Your task to perform on an android device: Open accessibility settings Image 0: 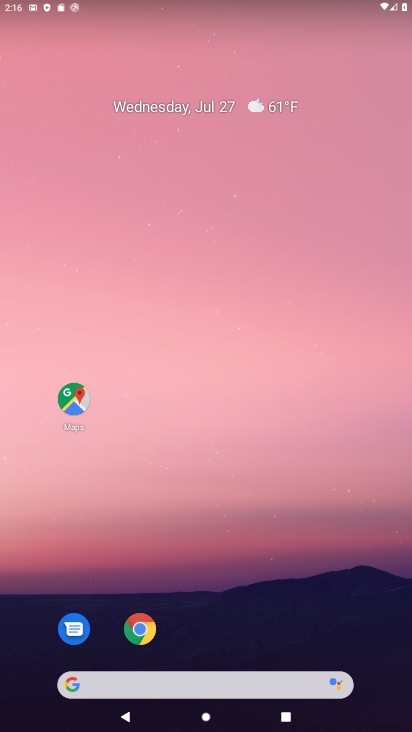
Step 0: drag from (220, 622) to (234, 67)
Your task to perform on an android device: Open accessibility settings Image 1: 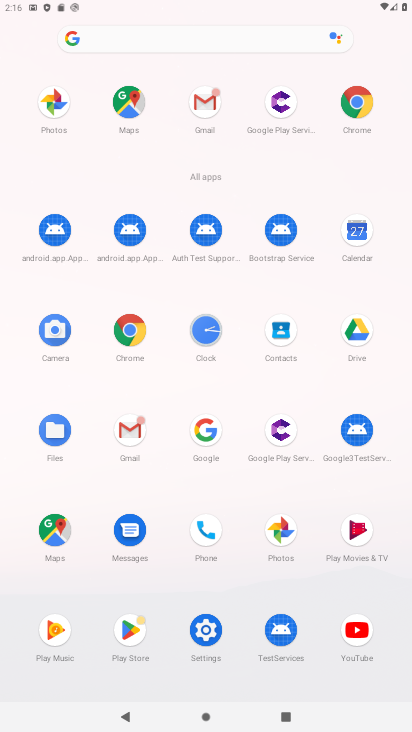
Step 1: click (202, 615)
Your task to perform on an android device: Open accessibility settings Image 2: 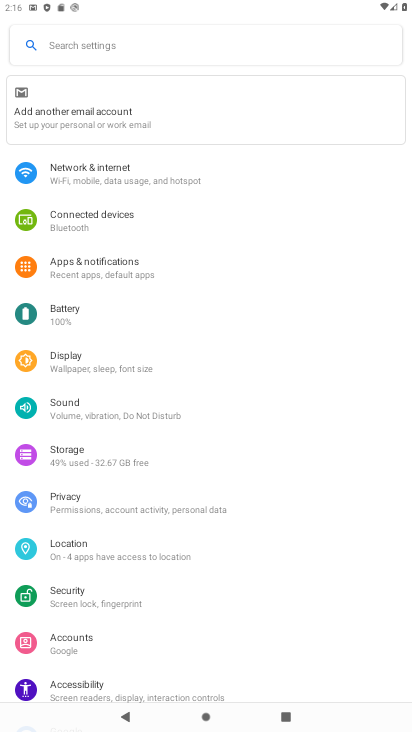
Step 2: drag from (162, 585) to (187, 321)
Your task to perform on an android device: Open accessibility settings Image 3: 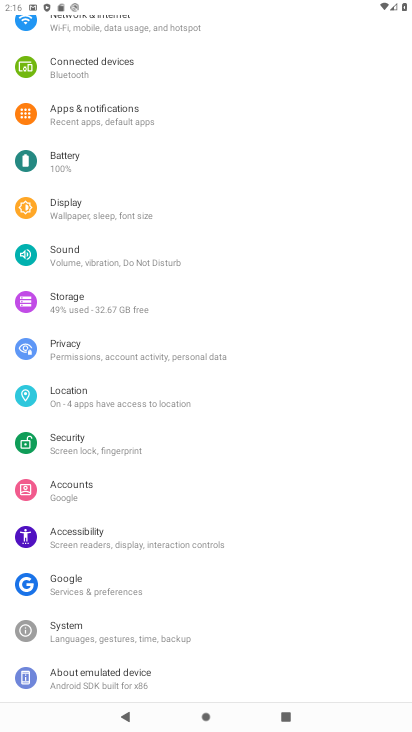
Step 3: click (78, 529)
Your task to perform on an android device: Open accessibility settings Image 4: 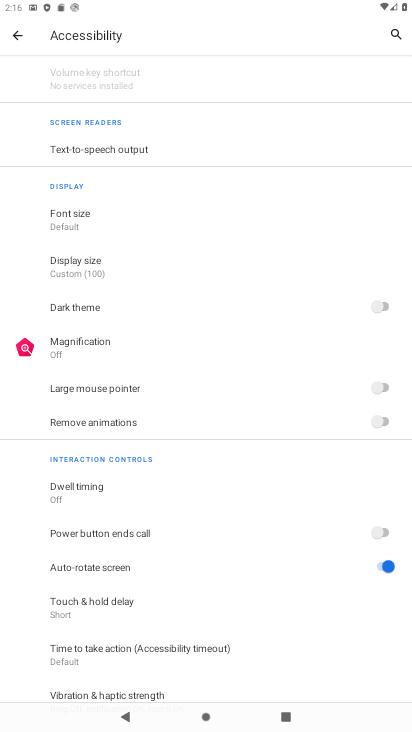
Step 4: task complete